Your task to perform on an android device: set the timer Image 0: 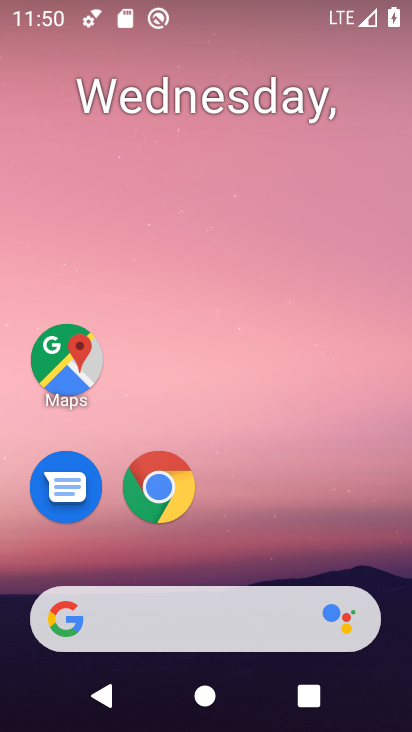
Step 0: drag from (390, 550) to (392, 370)
Your task to perform on an android device: set the timer Image 1: 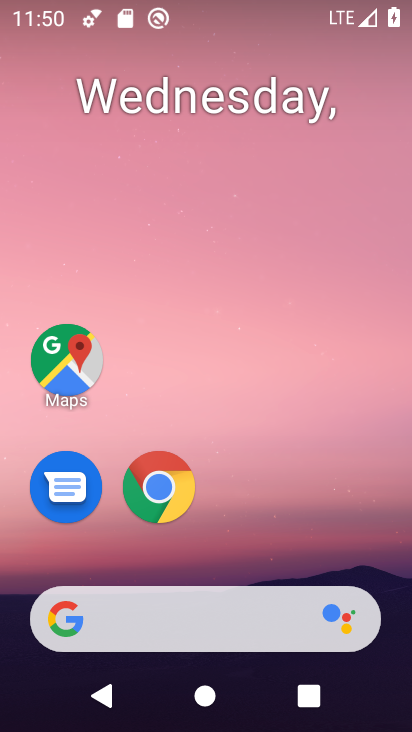
Step 1: drag from (372, 553) to (360, 175)
Your task to perform on an android device: set the timer Image 2: 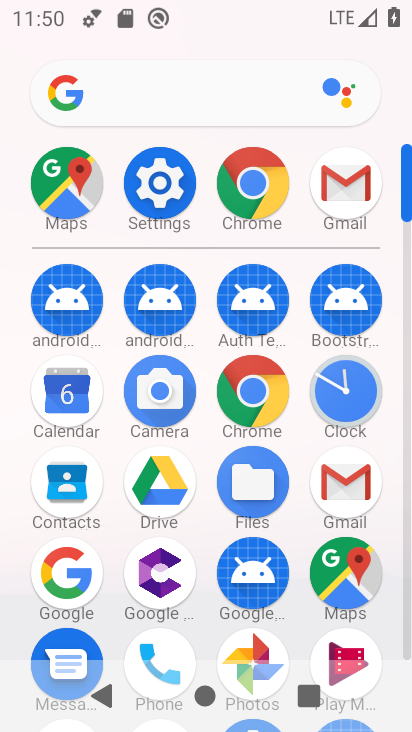
Step 2: click (344, 386)
Your task to perform on an android device: set the timer Image 3: 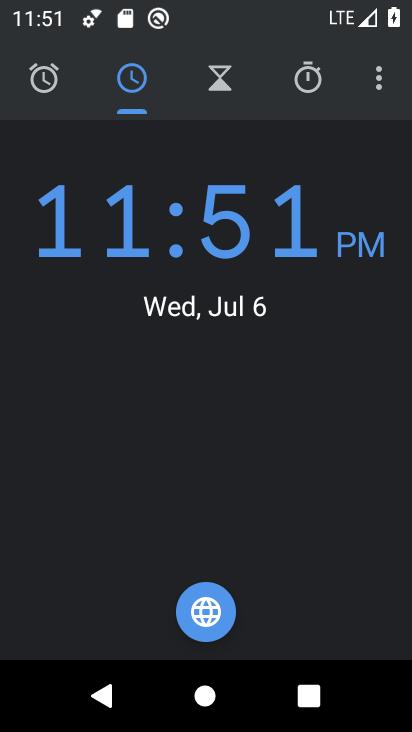
Step 3: click (225, 80)
Your task to perform on an android device: set the timer Image 4: 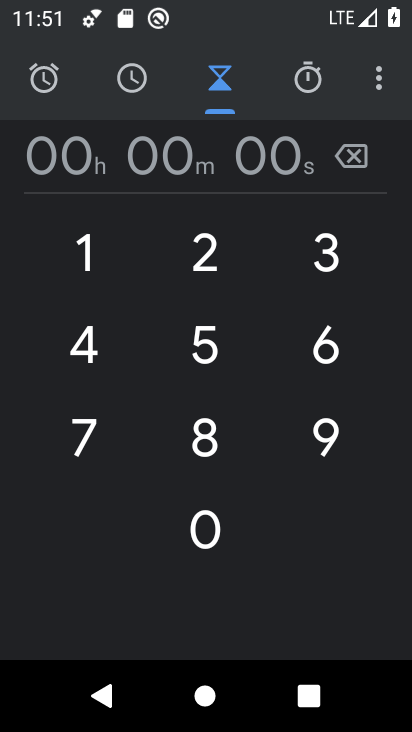
Step 4: click (229, 351)
Your task to perform on an android device: set the timer Image 5: 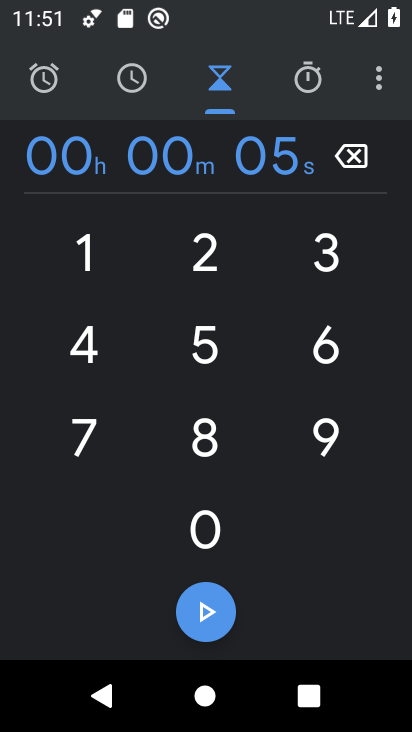
Step 5: click (211, 623)
Your task to perform on an android device: set the timer Image 6: 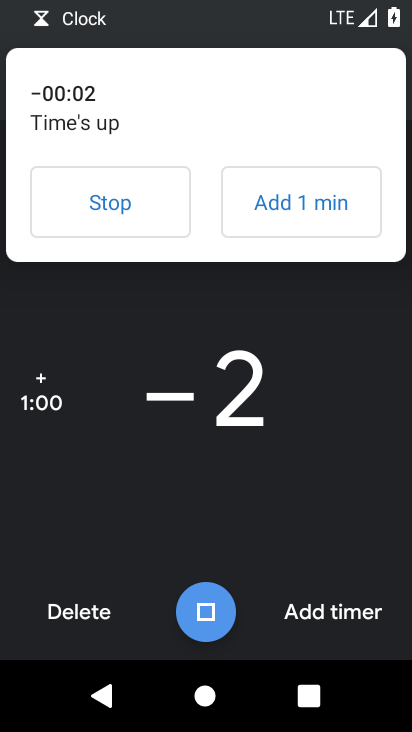
Step 6: task complete